Your task to perform on an android device: see creations saved in the google photos Image 0: 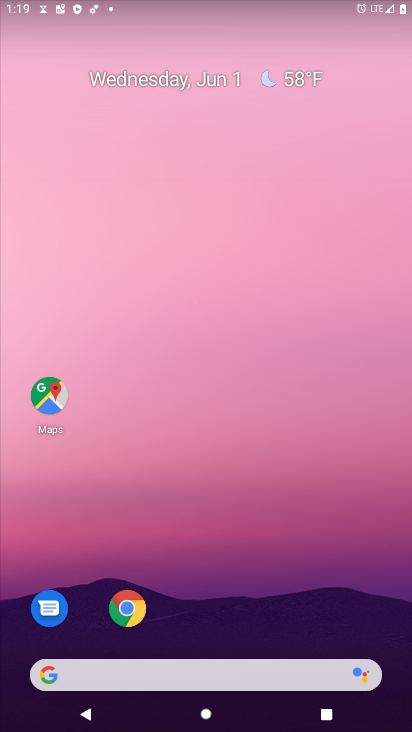
Step 0: drag from (214, 512) to (252, 114)
Your task to perform on an android device: see creations saved in the google photos Image 1: 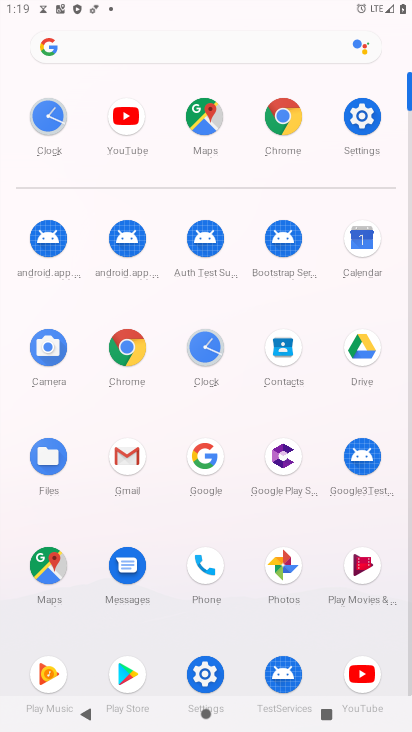
Step 1: click (281, 571)
Your task to perform on an android device: see creations saved in the google photos Image 2: 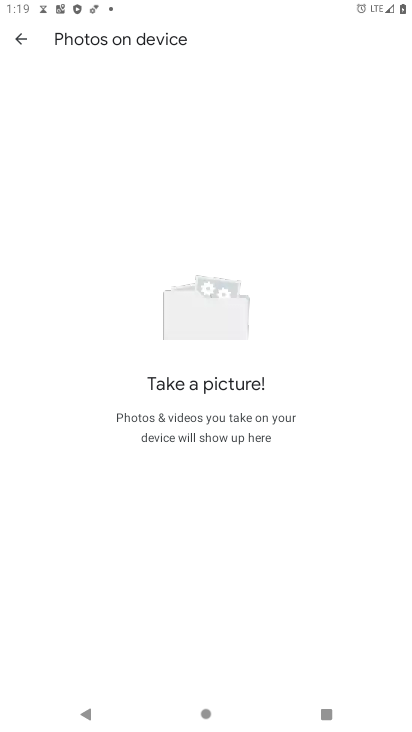
Step 2: click (12, 38)
Your task to perform on an android device: see creations saved in the google photos Image 3: 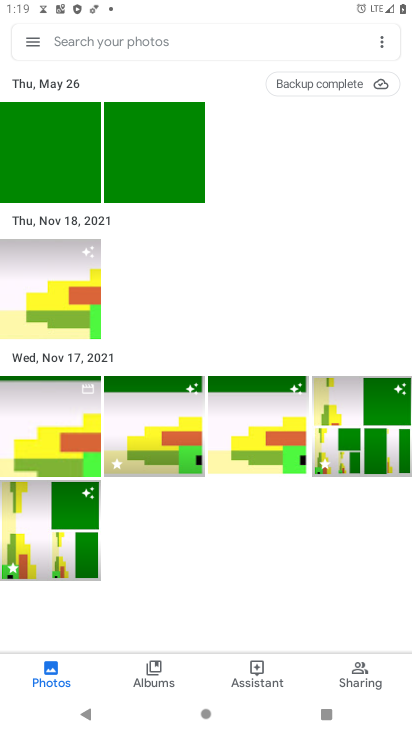
Step 3: task complete